Your task to perform on an android device: turn off notifications settings in the gmail app Image 0: 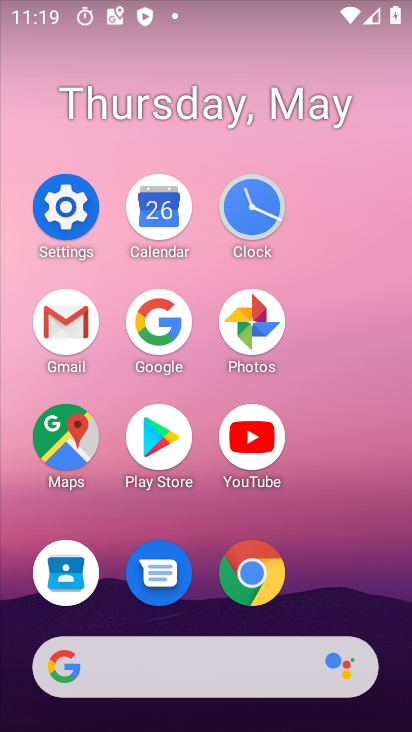
Step 0: click (82, 324)
Your task to perform on an android device: turn off notifications settings in the gmail app Image 1: 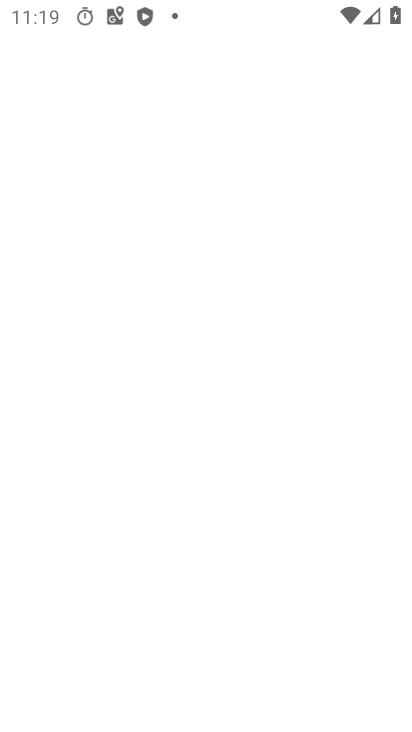
Step 1: click (71, 333)
Your task to perform on an android device: turn off notifications settings in the gmail app Image 2: 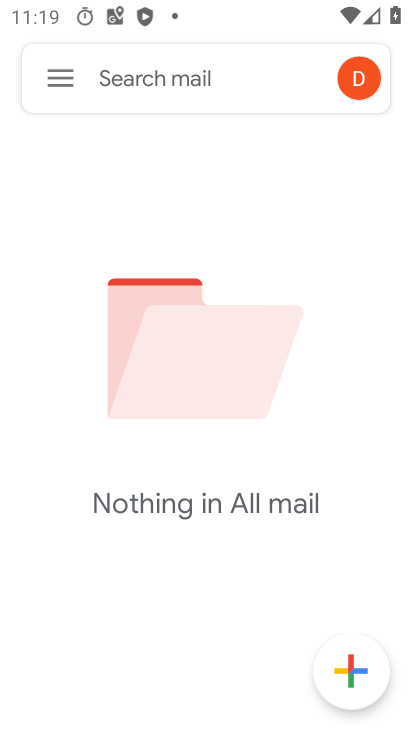
Step 2: click (67, 78)
Your task to perform on an android device: turn off notifications settings in the gmail app Image 3: 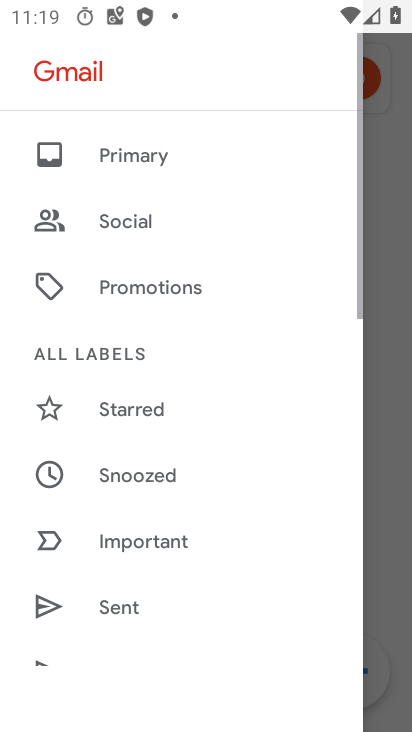
Step 3: drag from (173, 524) to (190, 172)
Your task to perform on an android device: turn off notifications settings in the gmail app Image 4: 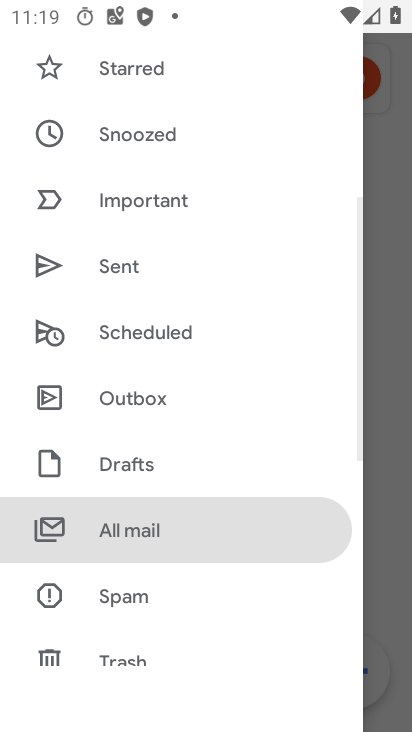
Step 4: drag from (171, 565) to (212, 195)
Your task to perform on an android device: turn off notifications settings in the gmail app Image 5: 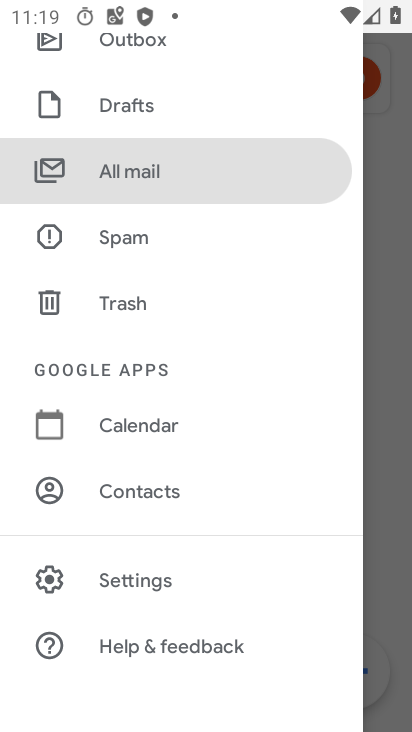
Step 5: drag from (195, 610) to (220, 237)
Your task to perform on an android device: turn off notifications settings in the gmail app Image 6: 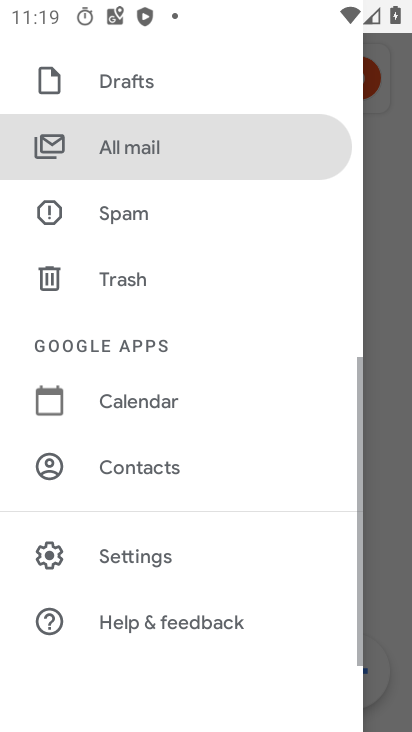
Step 6: click (99, 564)
Your task to perform on an android device: turn off notifications settings in the gmail app Image 7: 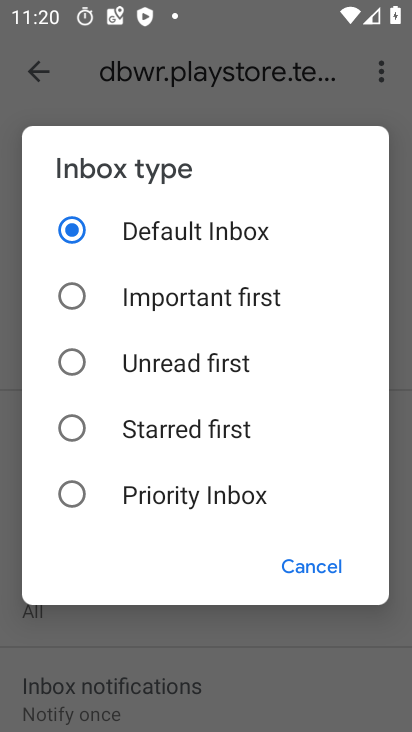
Step 7: click (313, 576)
Your task to perform on an android device: turn off notifications settings in the gmail app Image 8: 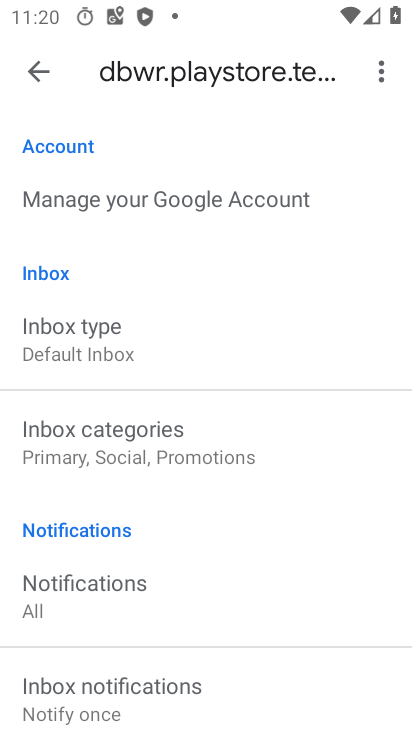
Step 8: click (159, 585)
Your task to perform on an android device: turn off notifications settings in the gmail app Image 9: 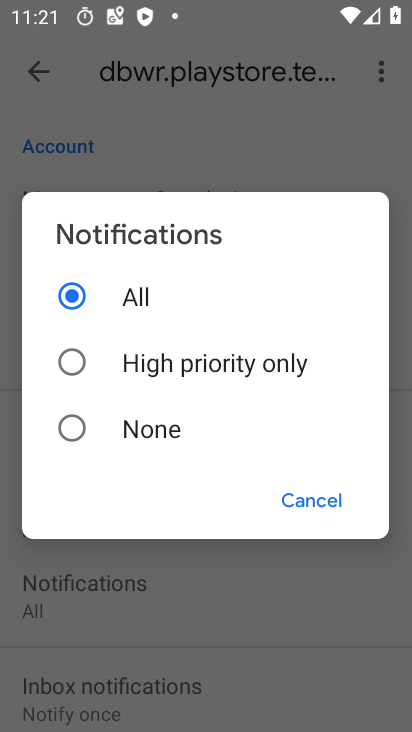
Step 9: click (103, 424)
Your task to perform on an android device: turn off notifications settings in the gmail app Image 10: 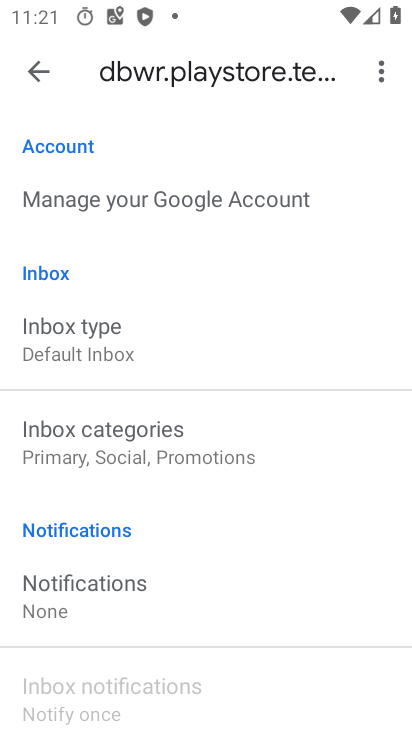
Step 10: task complete